Your task to perform on an android device: choose inbox layout in the gmail app Image 0: 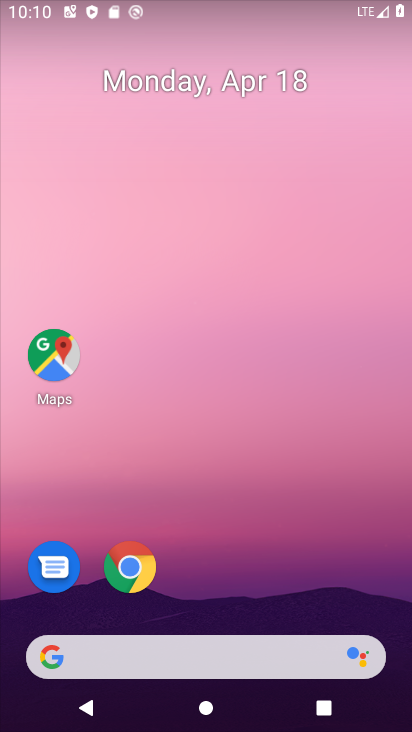
Step 0: drag from (270, 379) to (288, 130)
Your task to perform on an android device: choose inbox layout in the gmail app Image 1: 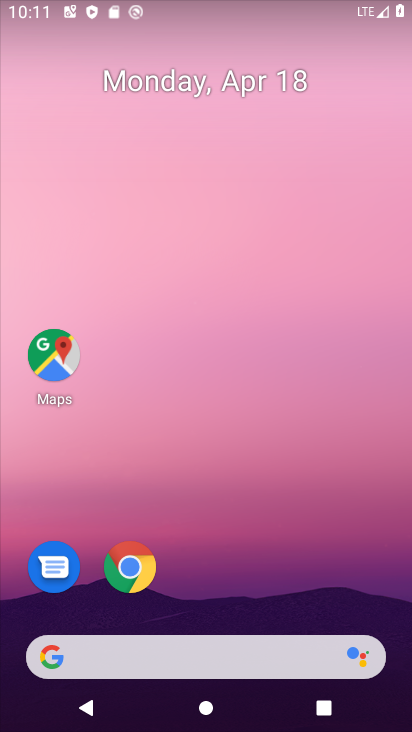
Step 1: drag from (328, 550) to (324, 112)
Your task to perform on an android device: choose inbox layout in the gmail app Image 2: 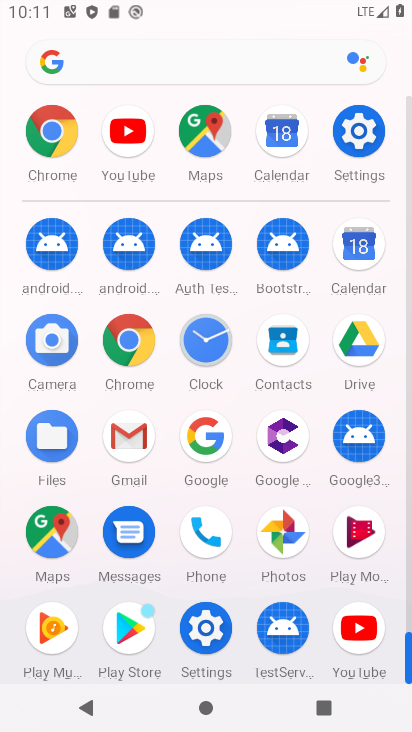
Step 2: click (114, 447)
Your task to perform on an android device: choose inbox layout in the gmail app Image 3: 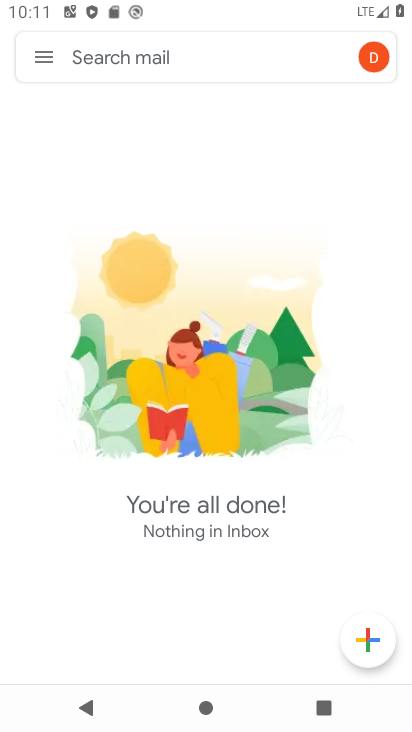
Step 3: click (42, 57)
Your task to perform on an android device: choose inbox layout in the gmail app Image 4: 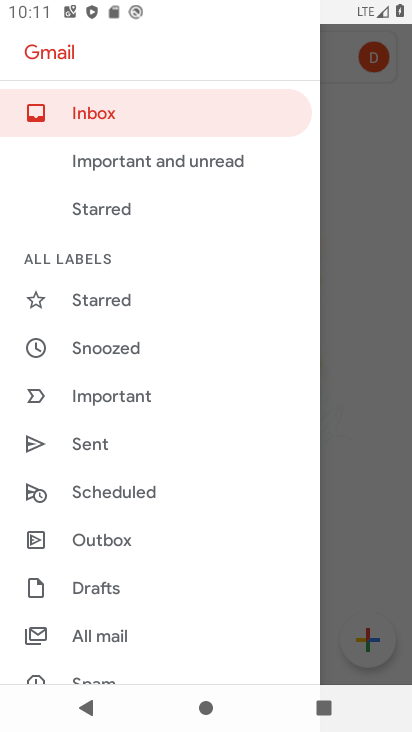
Step 4: drag from (167, 586) to (199, 243)
Your task to perform on an android device: choose inbox layout in the gmail app Image 5: 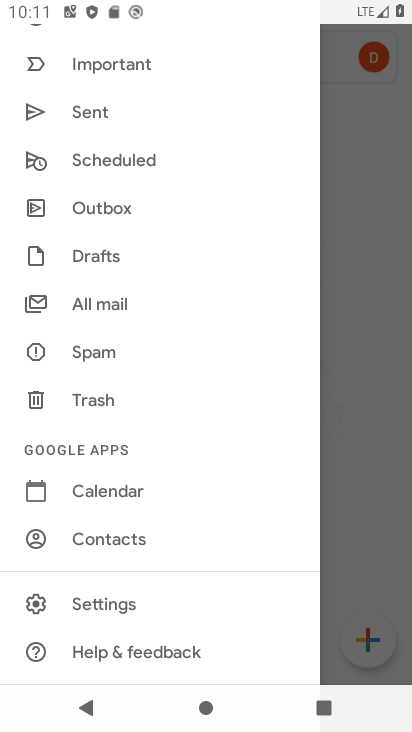
Step 5: click (122, 594)
Your task to perform on an android device: choose inbox layout in the gmail app Image 6: 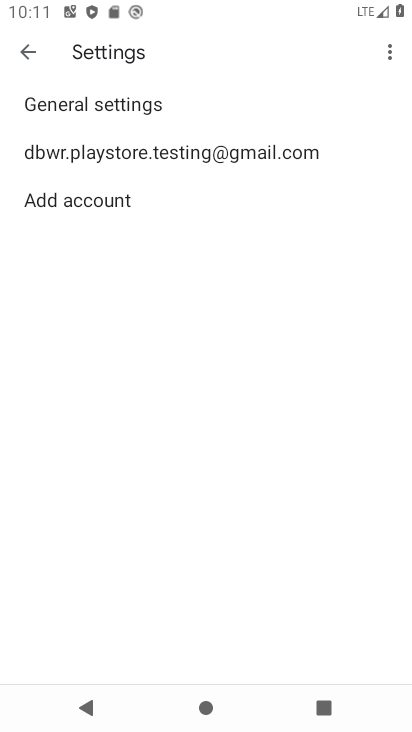
Step 6: click (139, 154)
Your task to perform on an android device: choose inbox layout in the gmail app Image 7: 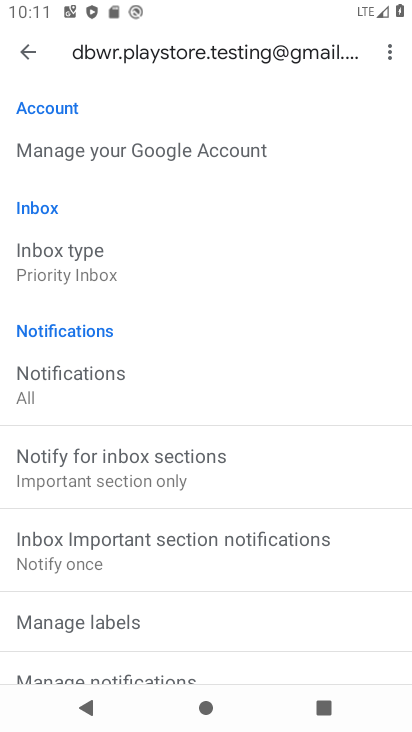
Step 7: click (77, 268)
Your task to perform on an android device: choose inbox layout in the gmail app Image 8: 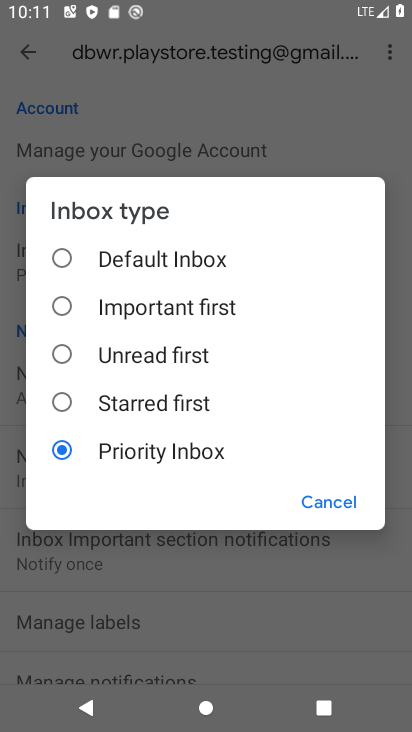
Step 8: click (128, 308)
Your task to perform on an android device: choose inbox layout in the gmail app Image 9: 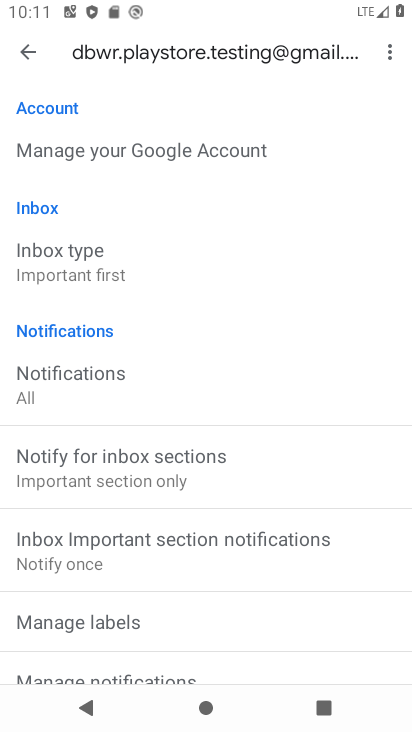
Step 9: task complete